Your task to perform on an android device: change the clock display to show seconds Image 0: 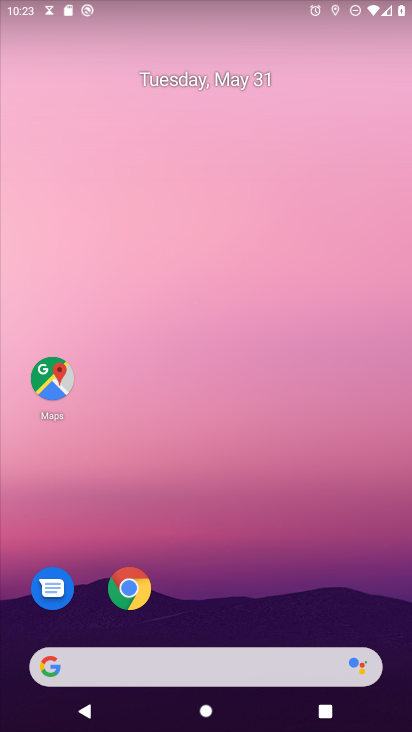
Step 0: drag from (266, 583) to (240, 8)
Your task to perform on an android device: change the clock display to show seconds Image 1: 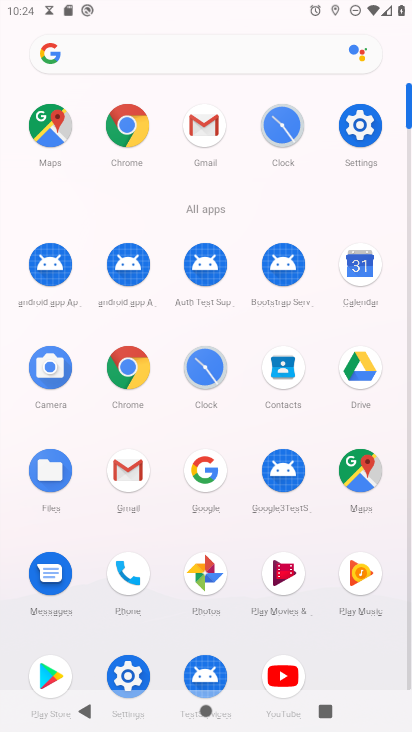
Step 1: click (282, 126)
Your task to perform on an android device: change the clock display to show seconds Image 2: 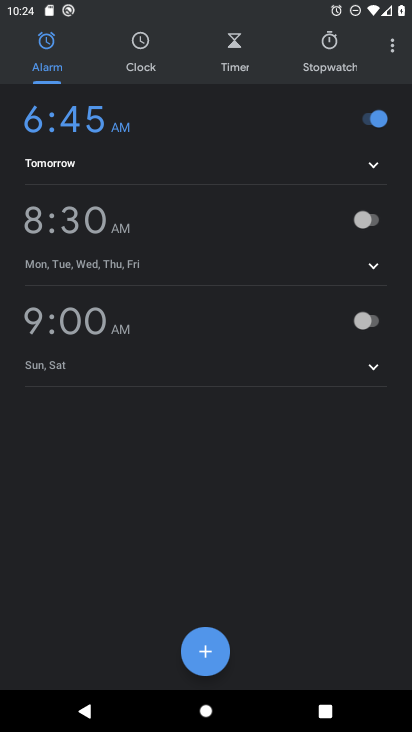
Step 2: click (392, 48)
Your task to perform on an android device: change the clock display to show seconds Image 3: 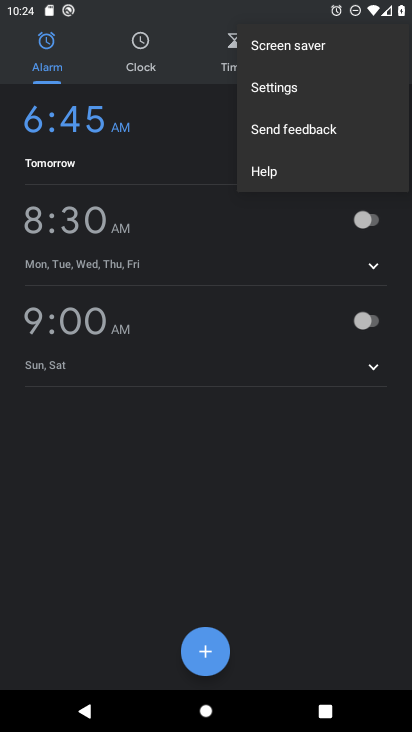
Step 3: click (288, 90)
Your task to perform on an android device: change the clock display to show seconds Image 4: 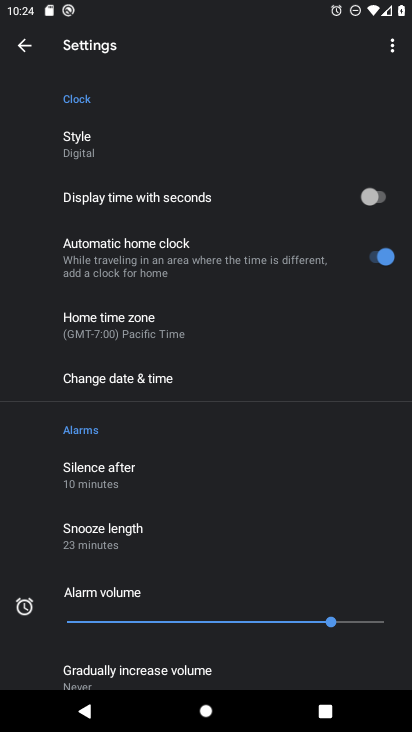
Step 4: click (371, 202)
Your task to perform on an android device: change the clock display to show seconds Image 5: 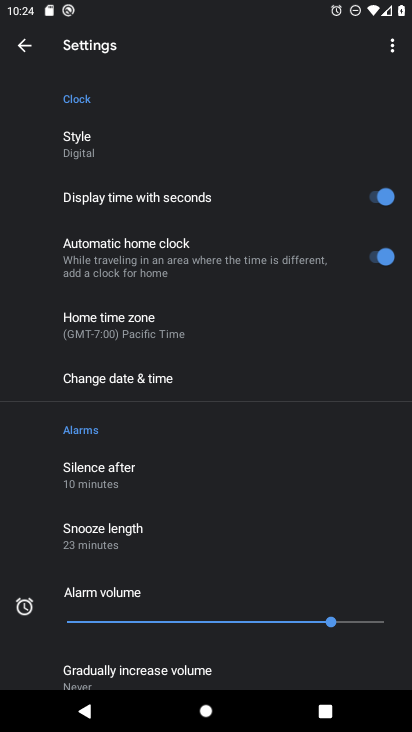
Step 5: task complete